Your task to perform on an android device: allow notifications from all sites in the chrome app Image 0: 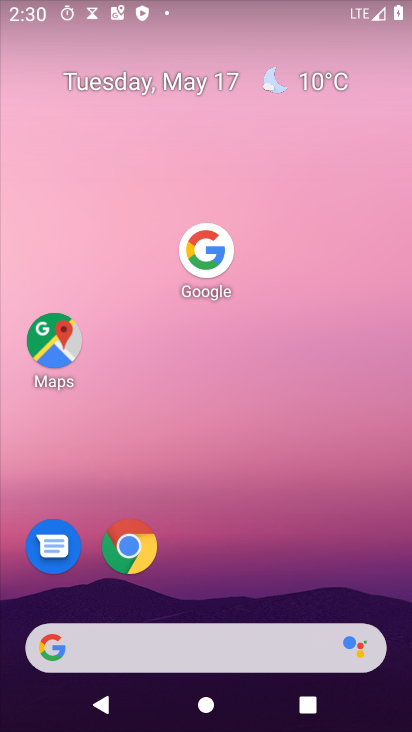
Step 0: press home button
Your task to perform on an android device: allow notifications from all sites in the chrome app Image 1: 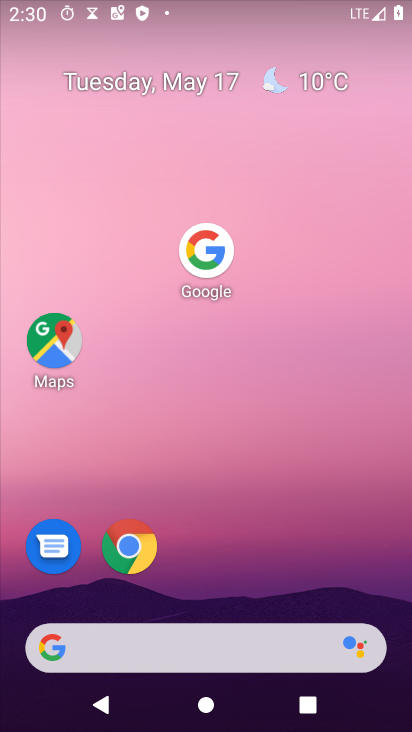
Step 1: drag from (112, 641) to (248, 219)
Your task to perform on an android device: allow notifications from all sites in the chrome app Image 2: 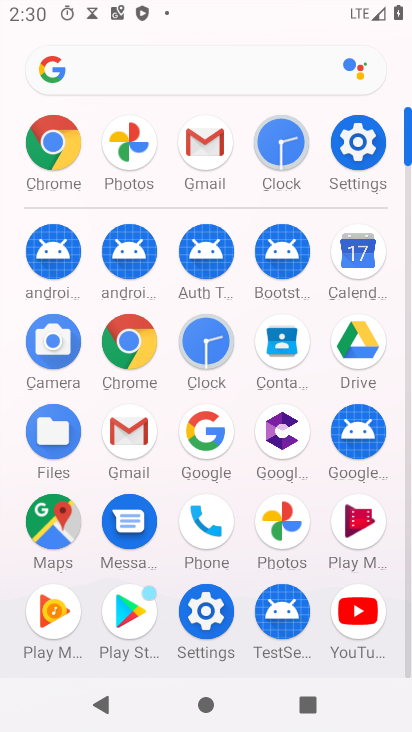
Step 2: click (45, 143)
Your task to perform on an android device: allow notifications from all sites in the chrome app Image 3: 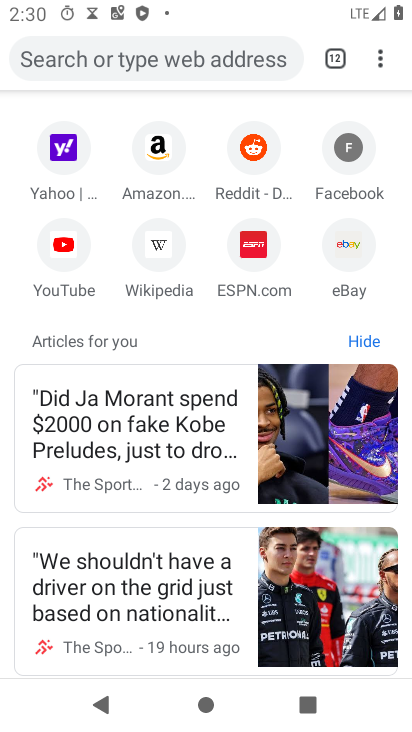
Step 3: drag from (382, 62) to (260, 500)
Your task to perform on an android device: allow notifications from all sites in the chrome app Image 4: 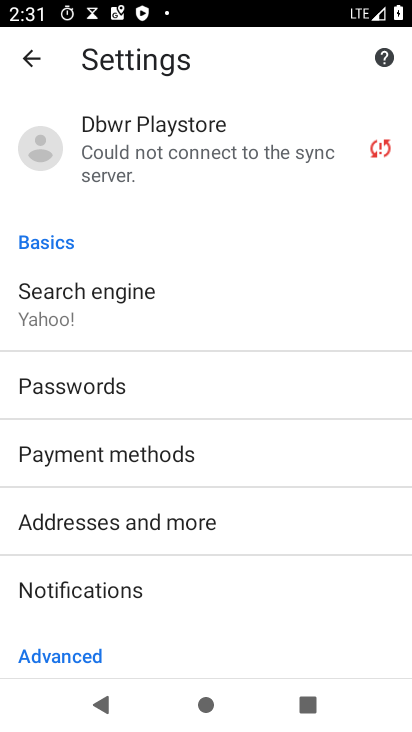
Step 4: drag from (155, 593) to (263, 265)
Your task to perform on an android device: allow notifications from all sites in the chrome app Image 5: 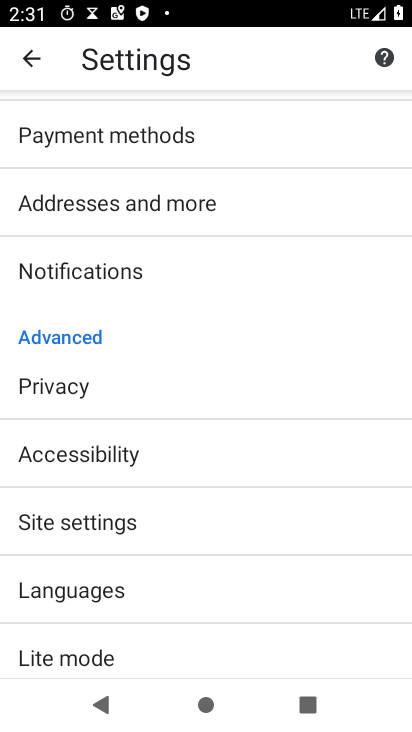
Step 5: click (105, 522)
Your task to perform on an android device: allow notifications from all sites in the chrome app Image 6: 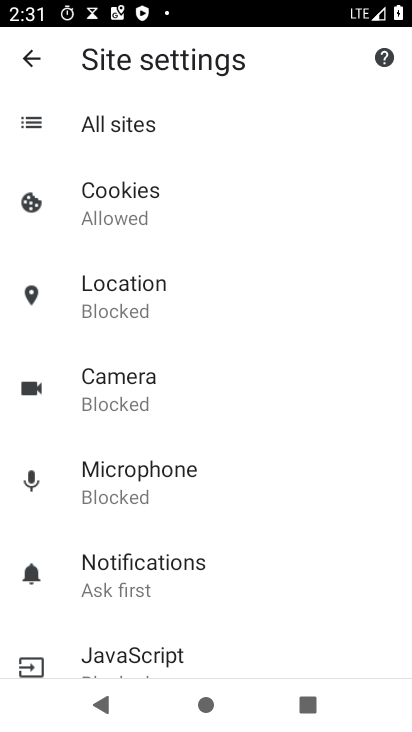
Step 6: click (155, 566)
Your task to perform on an android device: allow notifications from all sites in the chrome app Image 7: 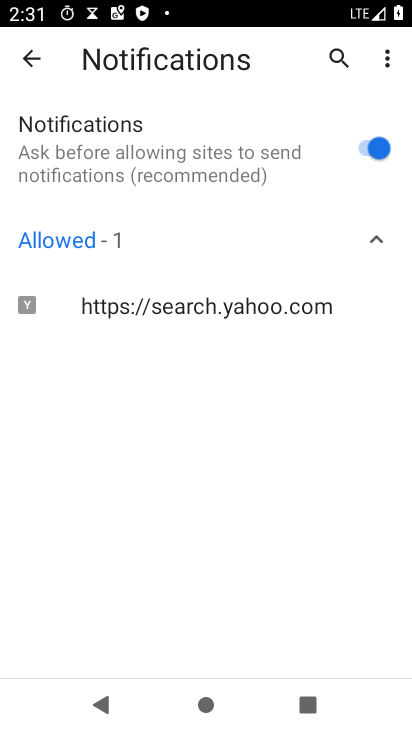
Step 7: task complete